Your task to perform on an android device: create a new album in the google photos Image 0: 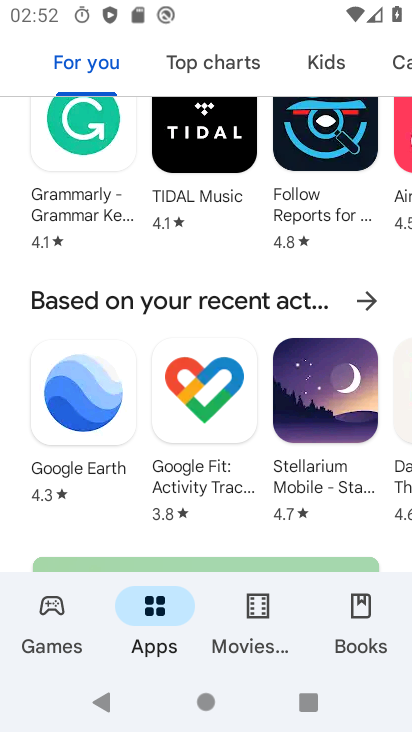
Step 0: drag from (223, 452) to (228, 271)
Your task to perform on an android device: create a new album in the google photos Image 1: 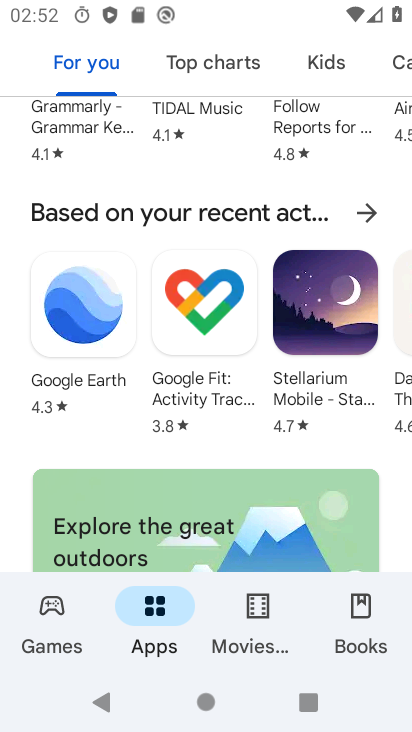
Step 1: drag from (255, 442) to (263, 214)
Your task to perform on an android device: create a new album in the google photos Image 2: 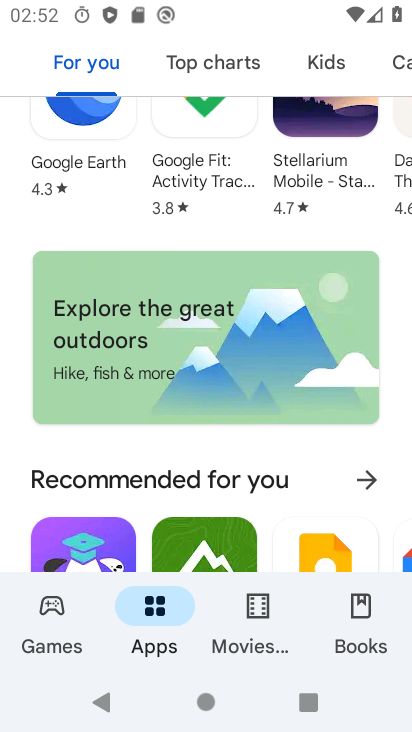
Step 2: drag from (278, 453) to (289, 189)
Your task to perform on an android device: create a new album in the google photos Image 3: 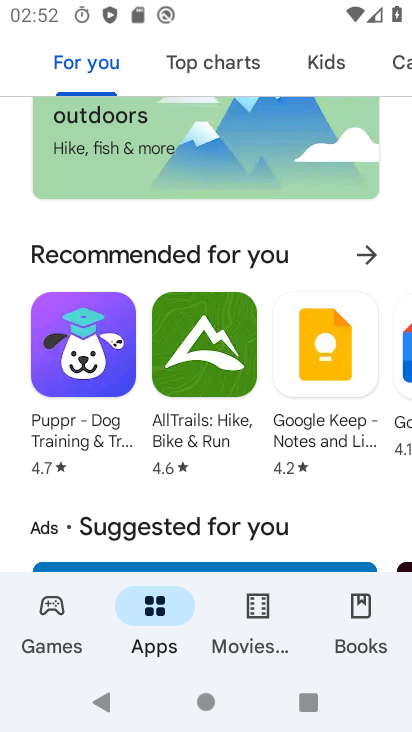
Step 3: drag from (275, 147) to (318, 576)
Your task to perform on an android device: create a new album in the google photos Image 4: 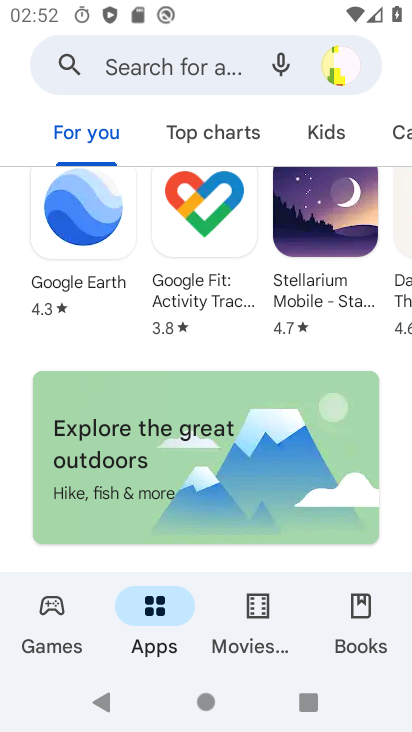
Step 4: drag from (259, 261) to (327, 692)
Your task to perform on an android device: create a new album in the google photos Image 5: 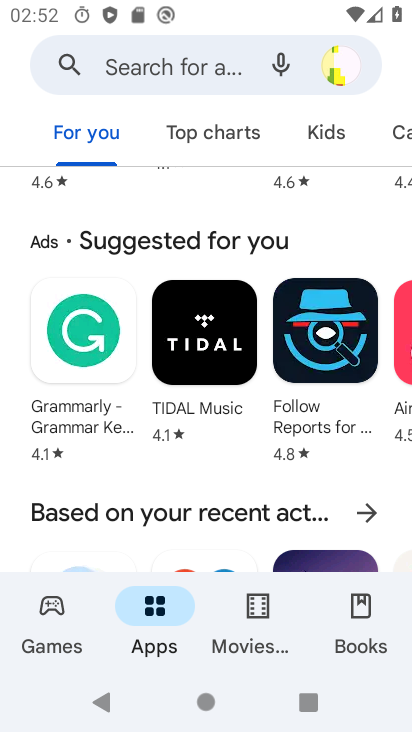
Step 5: drag from (271, 242) to (282, 551)
Your task to perform on an android device: create a new album in the google photos Image 6: 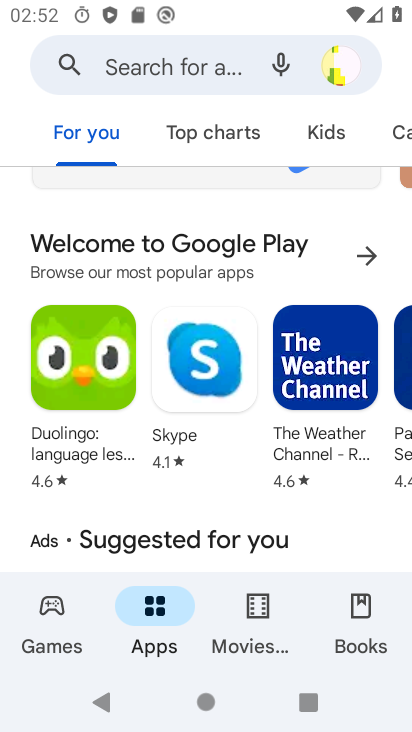
Step 6: drag from (255, 265) to (310, 569)
Your task to perform on an android device: create a new album in the google photos Image 7: 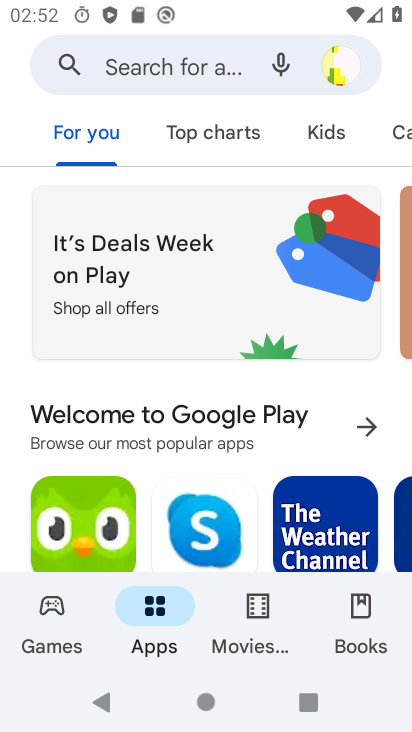
Step 7: drag from (263, 464) to (294, 269)
Your task to perform on an android device: create a new album in the google photos Image 8: 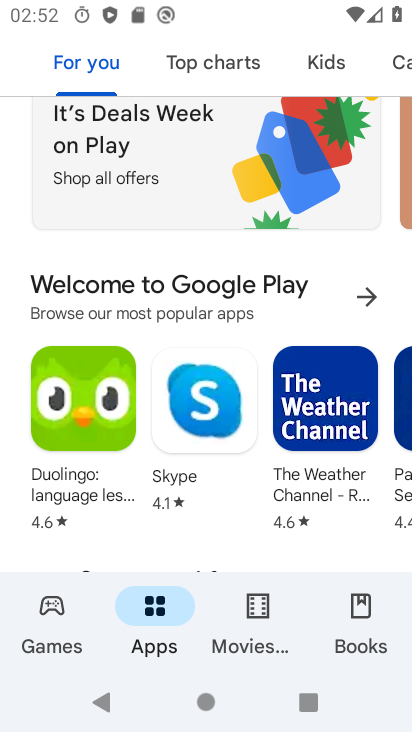
Step 8: press home button
Your task to perform on an android device: create a new album in the google photos Image 9: 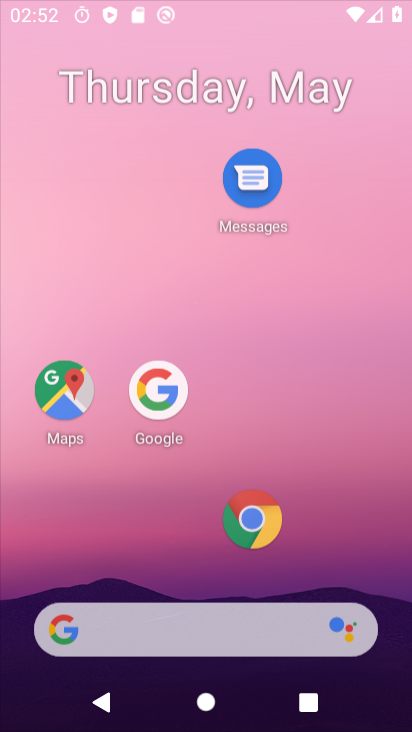
Step 9: drag from (192, 539) to (272, 131)
Your task to perform on an android device: create a new album in the google photos Image 10: 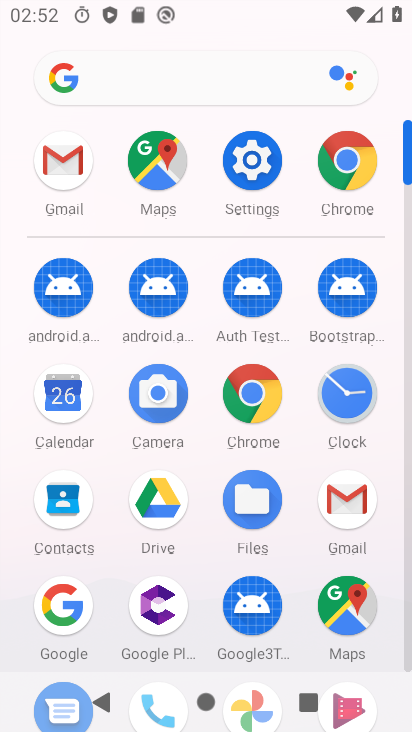
Step 10: drag from (212, 544) to (231, 146)
Your task to perform on an android device: create a new album in the google photos Image 11: 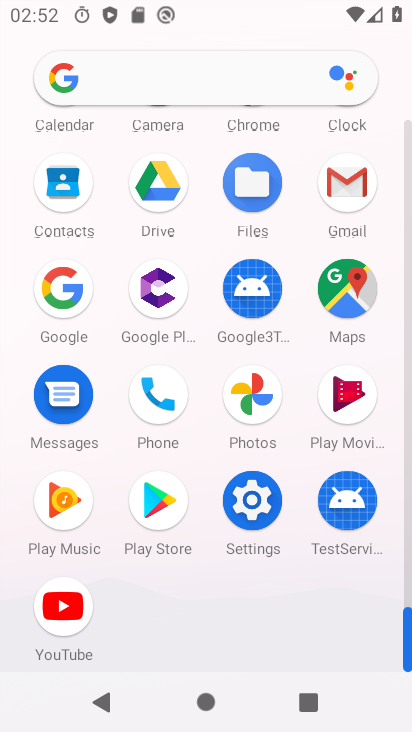
Step 11: click (251, 389)
Your task to perform on an android device: create a new album in the google photos Image 12: 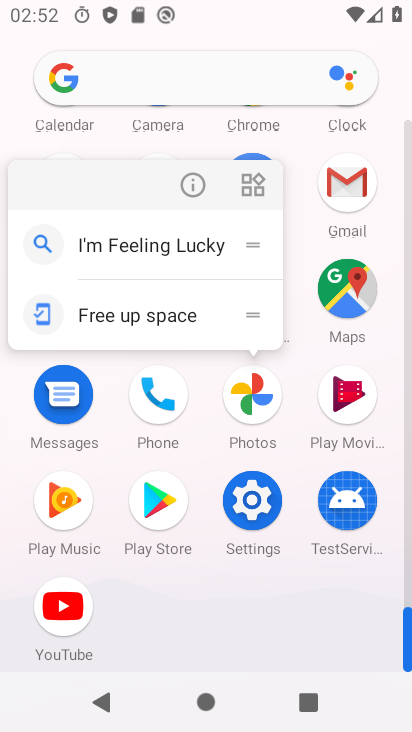
Step 12: click (173, 174)
Your task to perform on an android device: create a new album in the google photos Image 13: 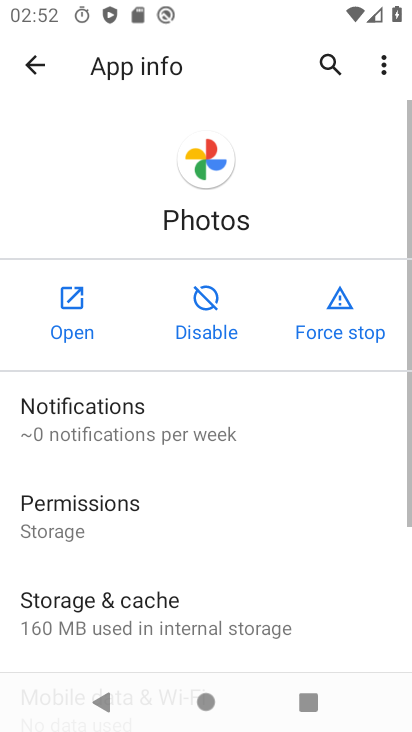
Step 13: click (60, 315)
Your task to perform on an android device: create a new album in the google photos Image 14: 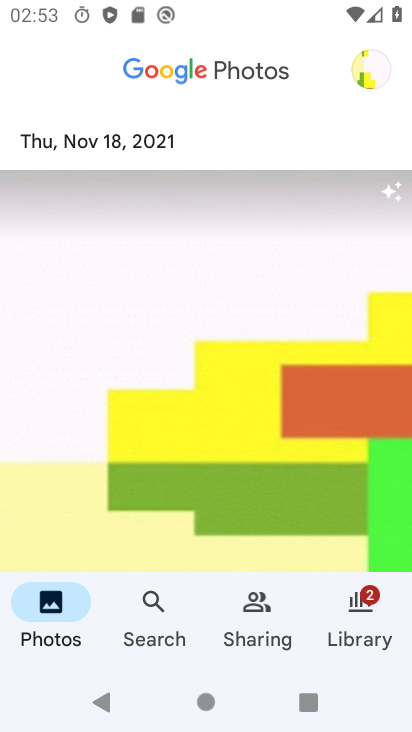
Step 14: drag from (209, 455) to (210, 6)
Your task to perform on an android device: create a new album in the google photos Image 15: 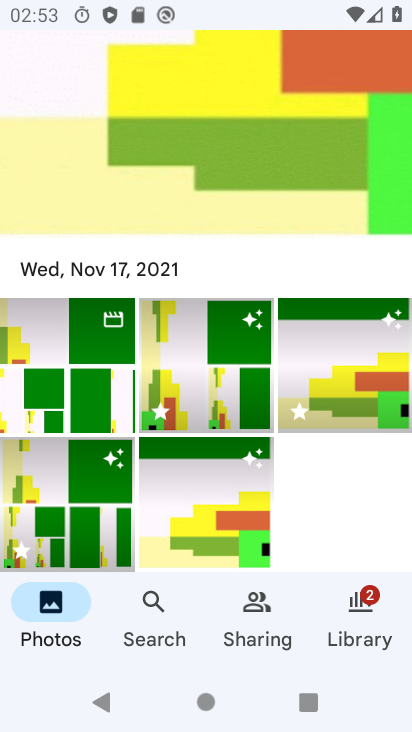
Step 15: click (162, 593)
Your task to perform on an android device: create a new album in the google photos Image 16: 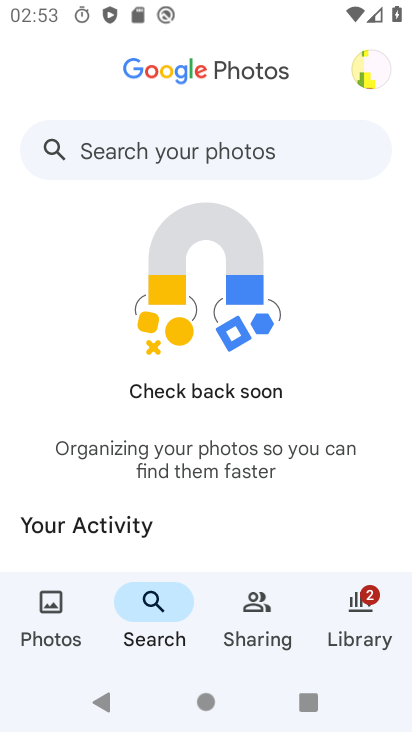
Step 16: drag from (163, 431) to (203, 160)
Your task to perform on an android device: create a new album in the google photos Image 17: 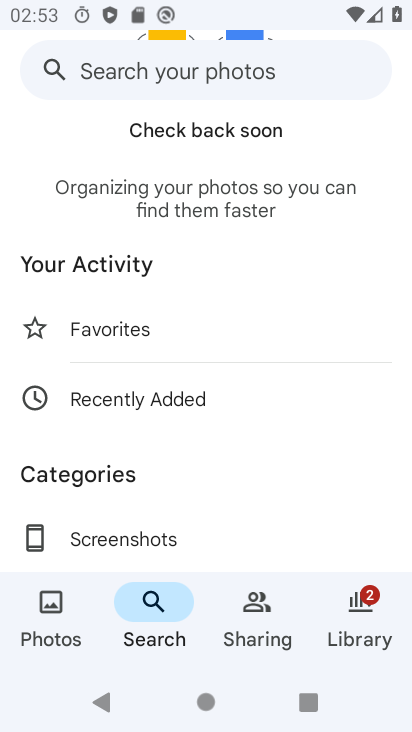
Step 17: click (80, 618)
Your task to perform on an android device: create a new album in the google photos Image 18: 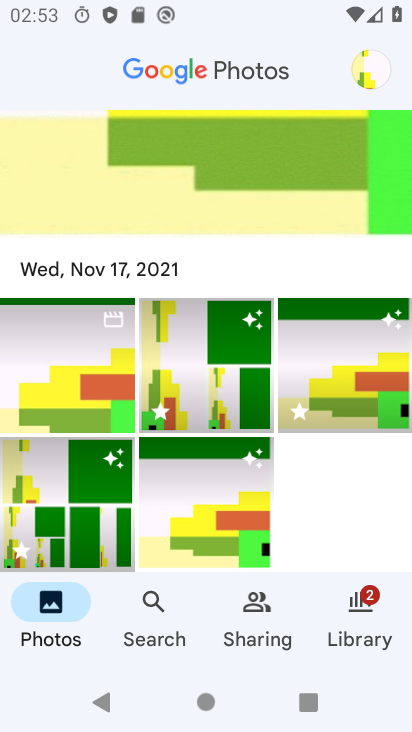
Step 18: click (366, 603)
Your task to perform on an android device: create a new album in the google photos Image 19: 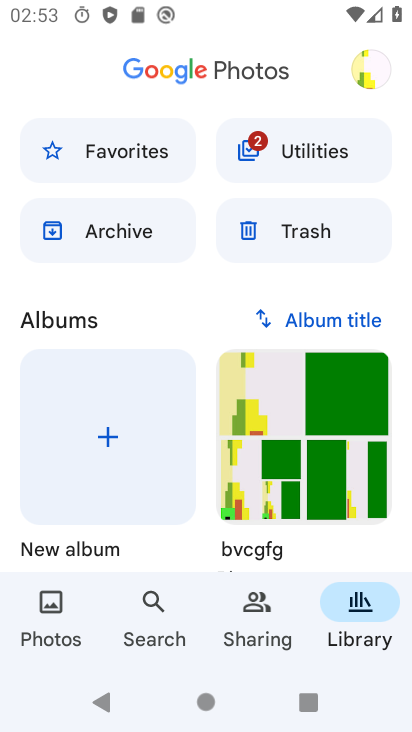
Step 19: drag from (197, 421) to (252, 95)
Your task to perform on an android device: create a new album in the google photos Image 20: 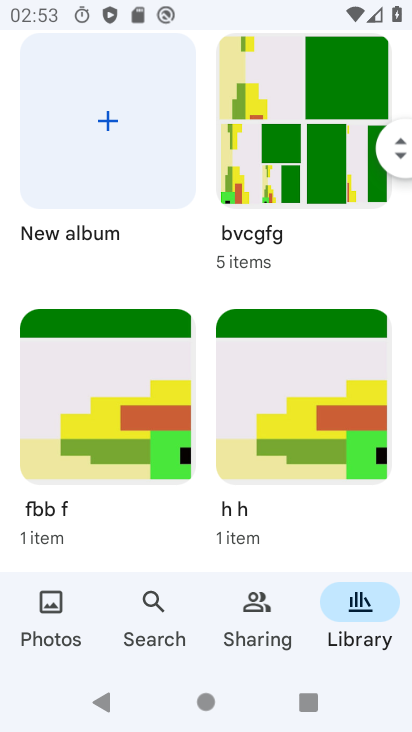
Step 20: click (110, 115)
Your task to perform on an android device: create a new album in the google photos Image 21: 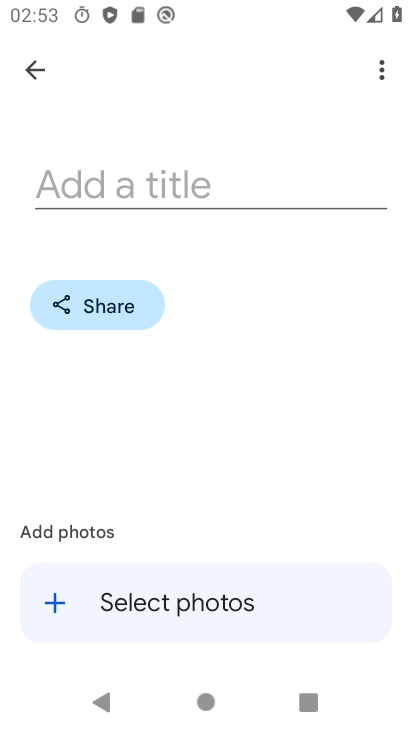
Step 21: click (117, 206)
Your task to perform on an android device: create a new album in the google photos Image 22: 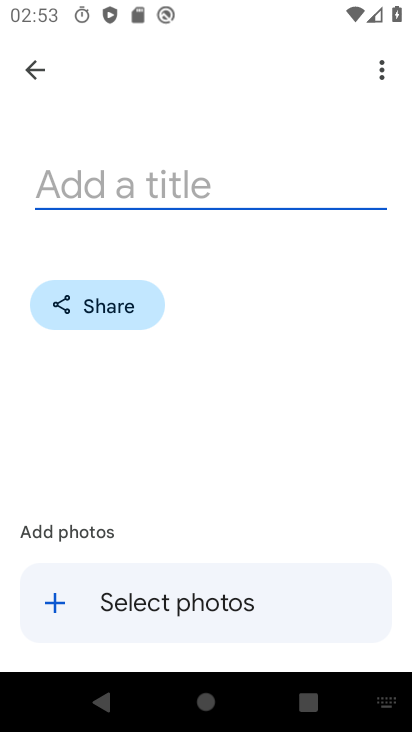
Step 22: type "mjjnbvc"
Your task to perform on an android device: create a new album in the google photos Image 23: 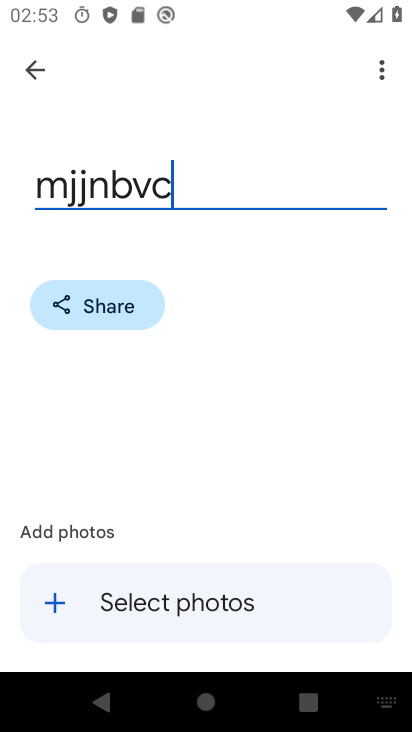
Step 23: drag from (205, 495) to (275, 99)
Your task to perform on an android device: create a new album in the google photos Image 24: 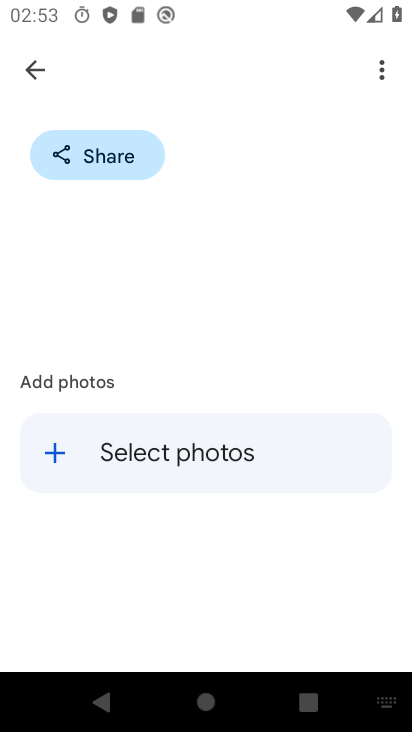
Step 24: click (62, 440)
Your task to perform on an android device: create a new album in the google photos Image 25: 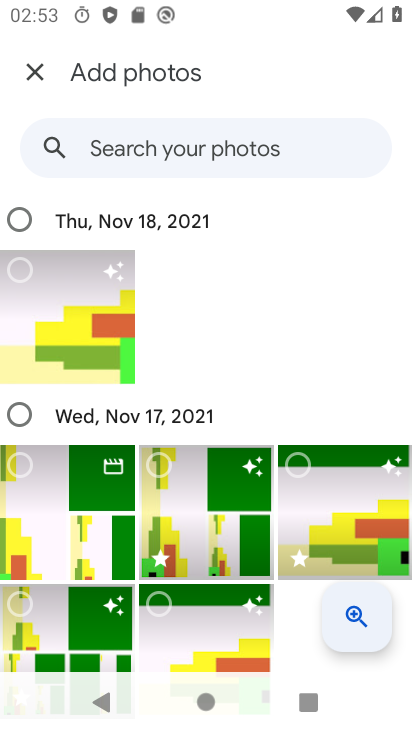
Step 25: click (87, 526)
Your task to perform on an android device: create a new album in the google photos Image 26: 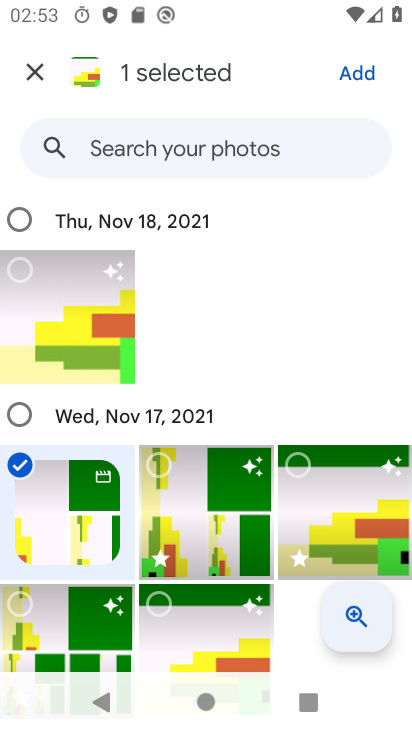
Step 26: click (194, 521)
Your task to perform on an android device: create a new album in the google photos Image 27: 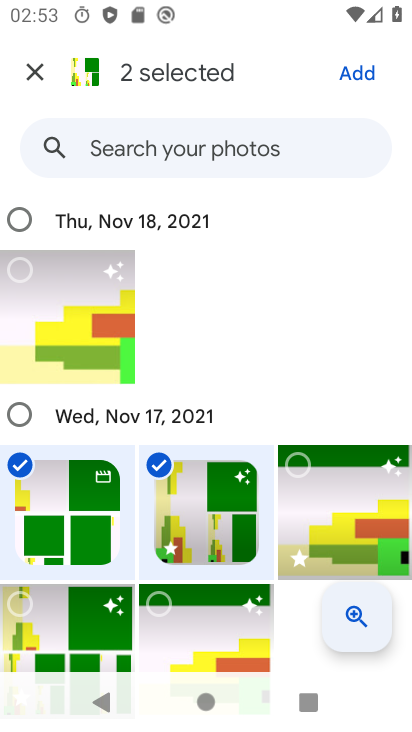
Step 27: click (353, 510)
Your task to perform on an android device: create a new album in the google photos Image 28: 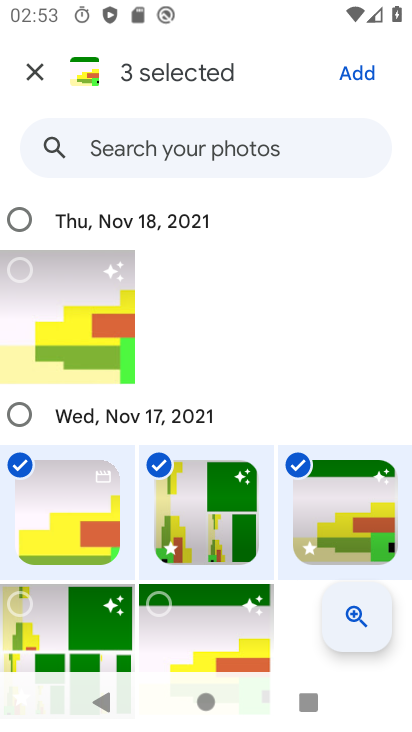
Step 28: click (341, 76)
Your task to perform on an android device: create a new album in the google photos Image 29: 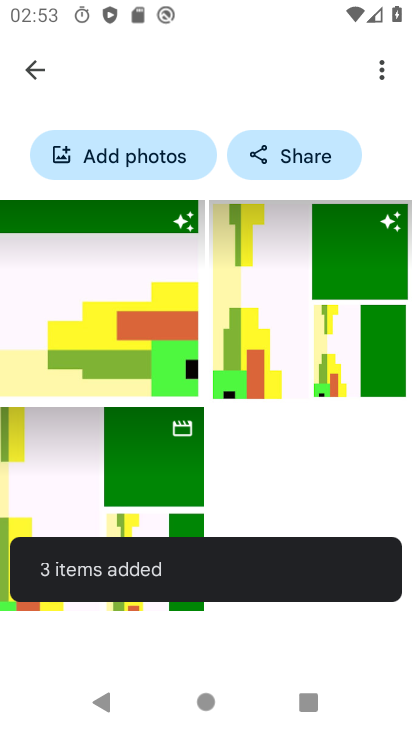
Step 29: task complete